Your task to perform on an android device: choose inbox layout in the gmail app Image 0: 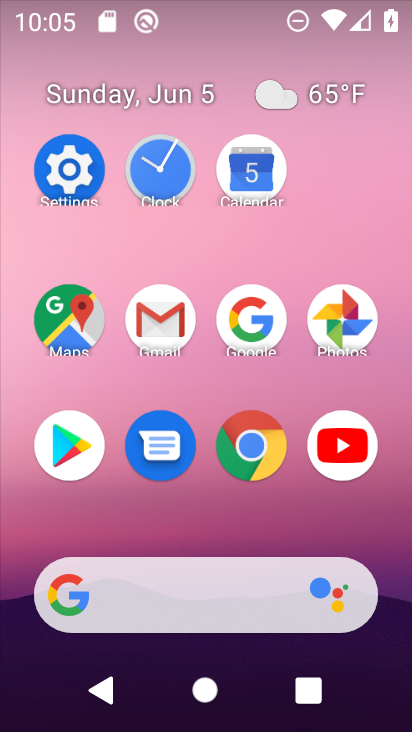
Step 0: click (189, 329)
Your task to perform on an android device: choose inbox layout in the gmail app Image 1: 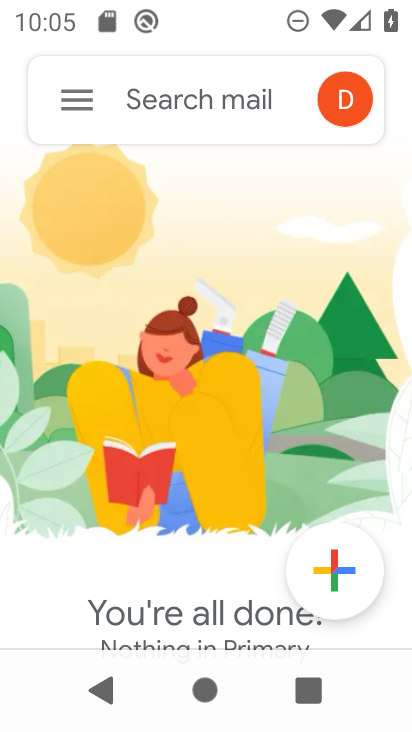
Step 1: click (67, 105)
Your task to perform on an android device: choose inbox layout in the gmail app Image 2: 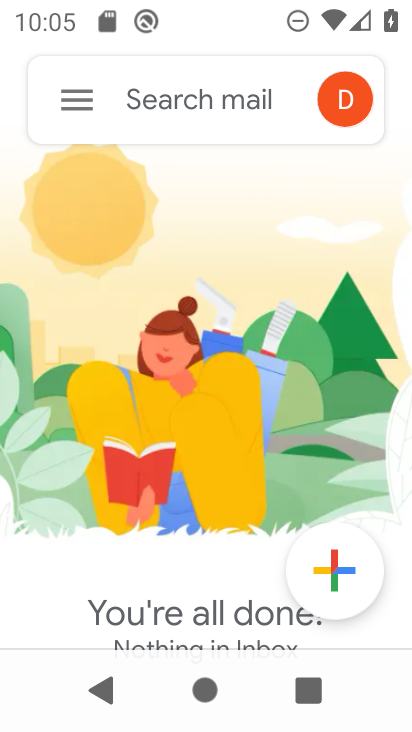
Step 2: click (85, 112)
Your task to perform on an android device: choose inbox layout in the gmail app Image 3: 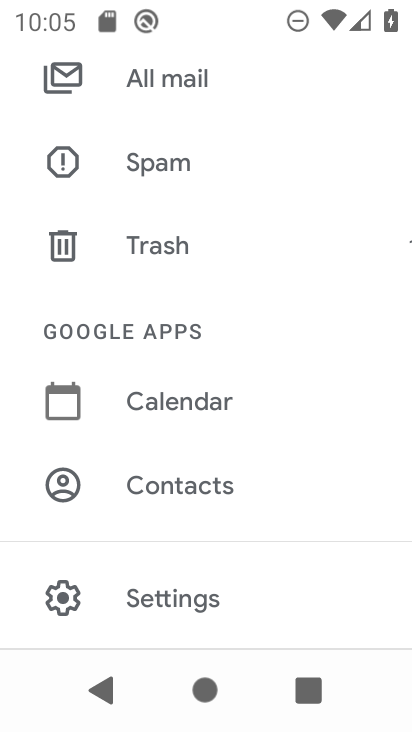
Step 3: click (218, 620)
Your task to perform on an android device: choose inbox layout in the gmail app Image 4: 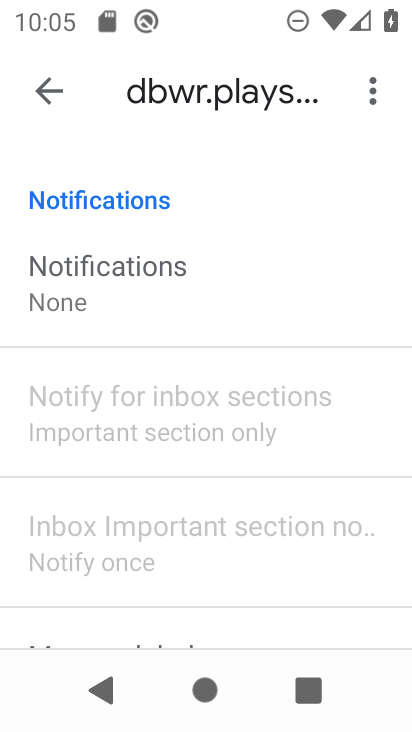
Step 4: drag from (318, 261) to (297, 618)
Your task to perform on an android device: choose inbox layout in the gmail app Image 5: 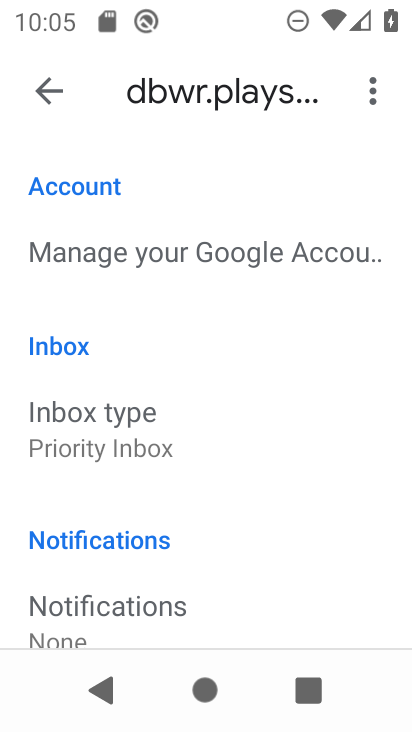
Step 5: click (207, 417)
Your task to perform on an android device: choose inbox layout in the gmail app Image 6: 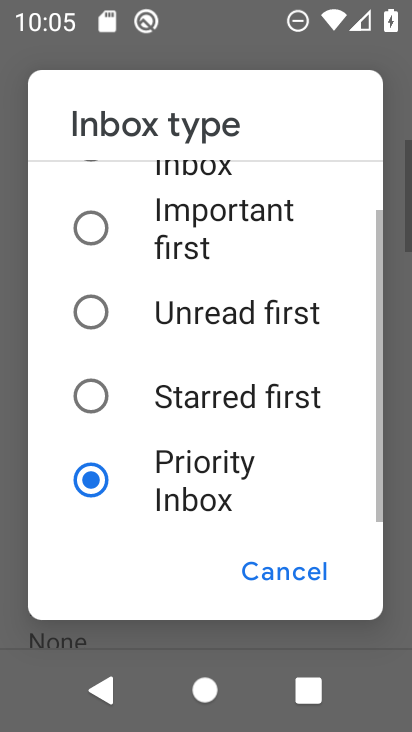
Step 6: task complete